Your task to perform on an android device: Search for Mexican restaurants on Maps Image 0: 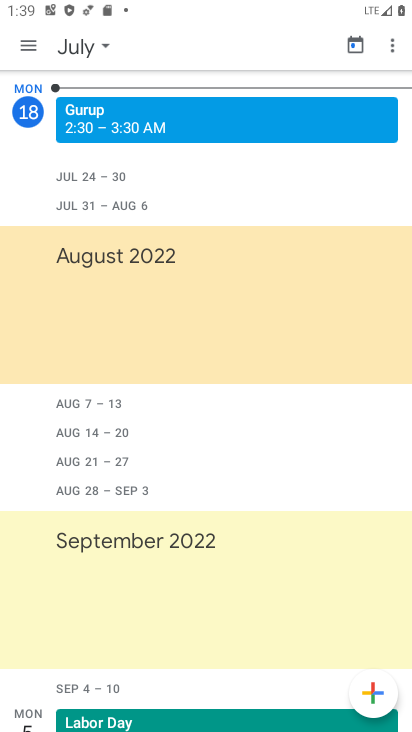
Step 0: press home button
Your task to perform on an android device: Search for Mexican restaurants on Maps Image 1: 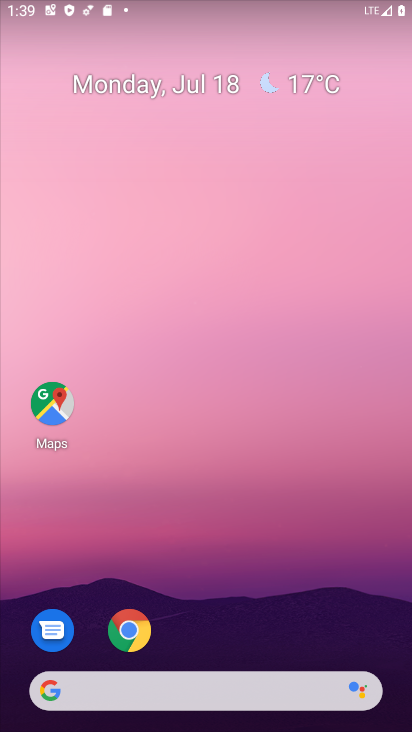
Step 1: click (57, 404)
Your task to perform on an android device: Search for Mexican restaurants on Maps Image 2: 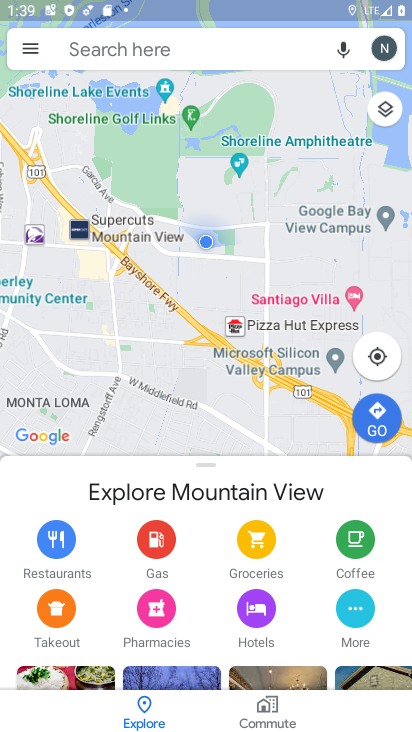
Step 2: click (190, 44)
Your task to perform on an android device: Search for Mexican restaurants on Maps Image 3: 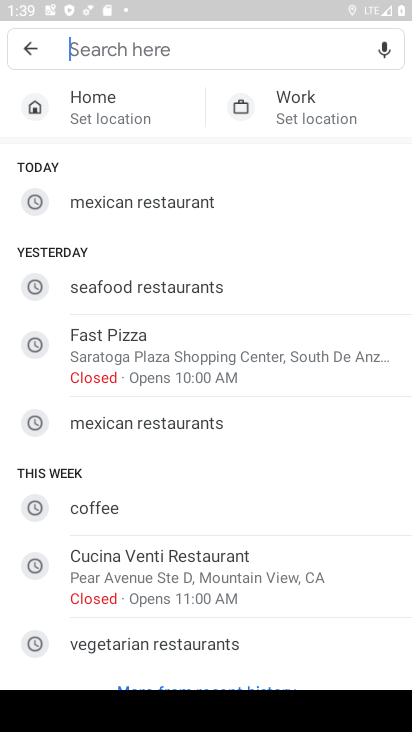
Step 3: click (181, 202)
Your task to perform on an android device: Search for Mexican restaurants on Maps Image 4: 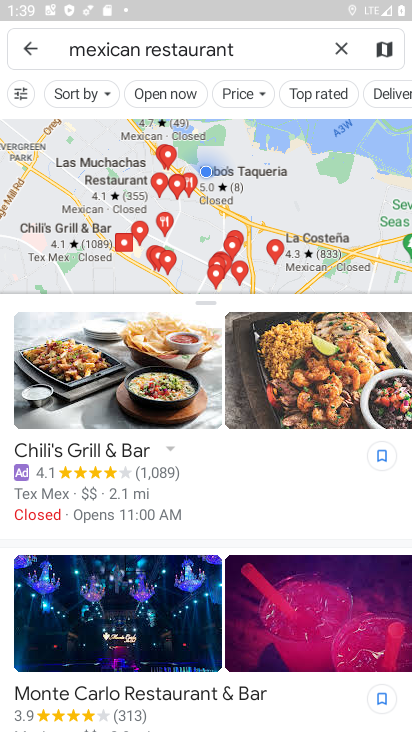
Step 4: task complete